Your task to perform on an android device: turn notification dots off Image 0: 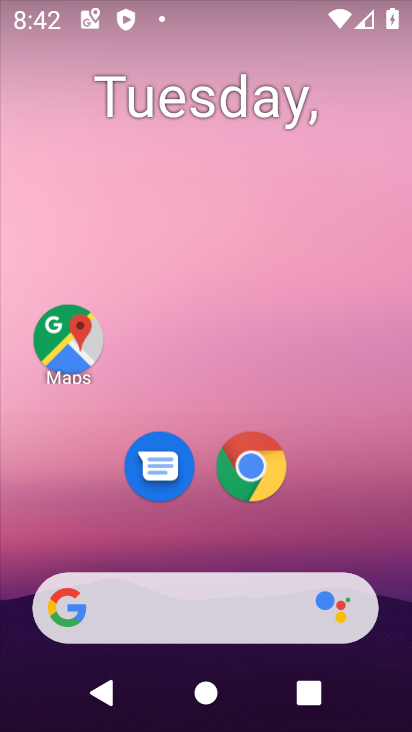
Step 0: drag from (379, 504) to (318, 145)
Your task to perform on an android device: turn notification dots off Image 1: 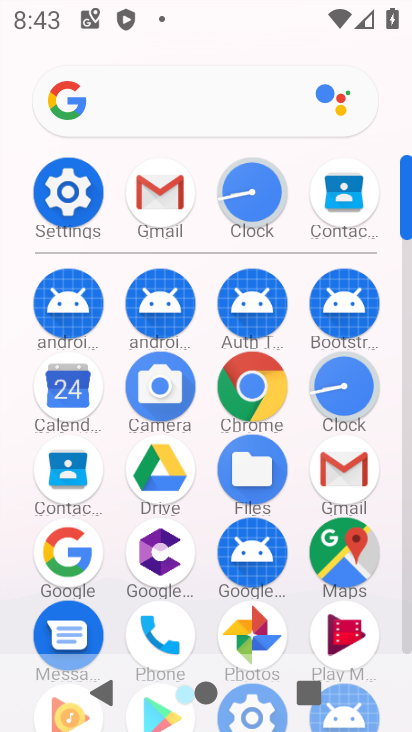
Step 1: click (58, 198)
Your task to perform on an android device: turn notification dots off Image 2: 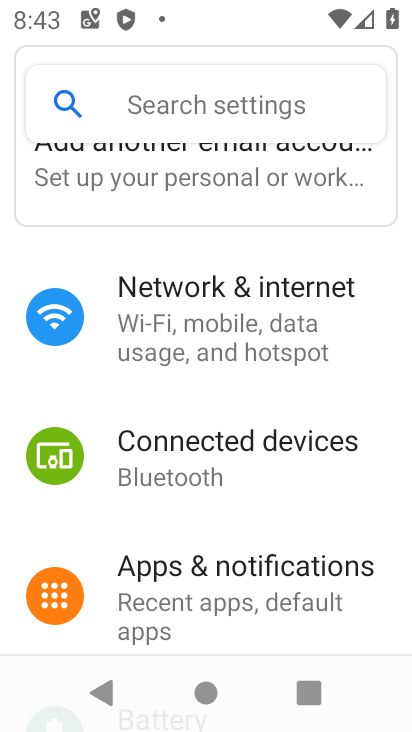
Step 2: click (178, 548)
Your task to perform on an android device: turn notification dots off Image 3: 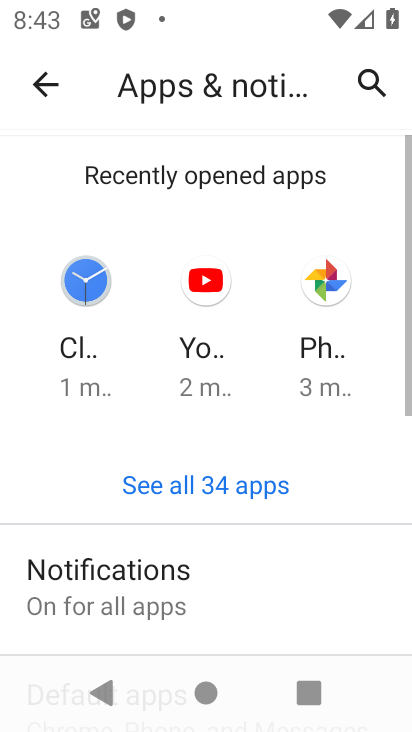
Step 3: click (150, 569)
Your task to perform on an android device: turn notification dots off Image 4: 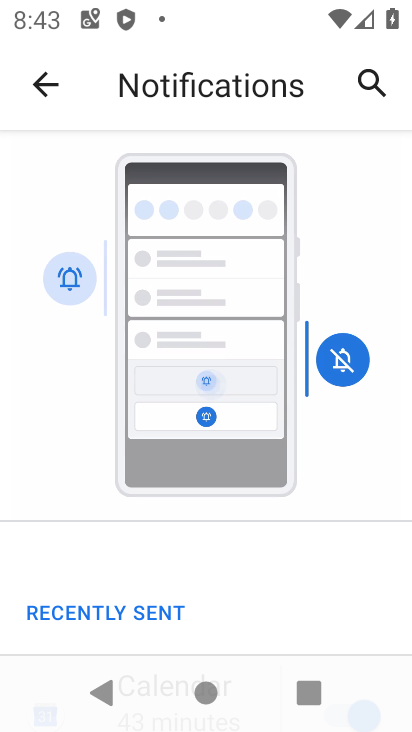
Step 4: drag from (236, 577) to (239, 232)
Your task to perform on an android device: turn notification dots off Image 5: 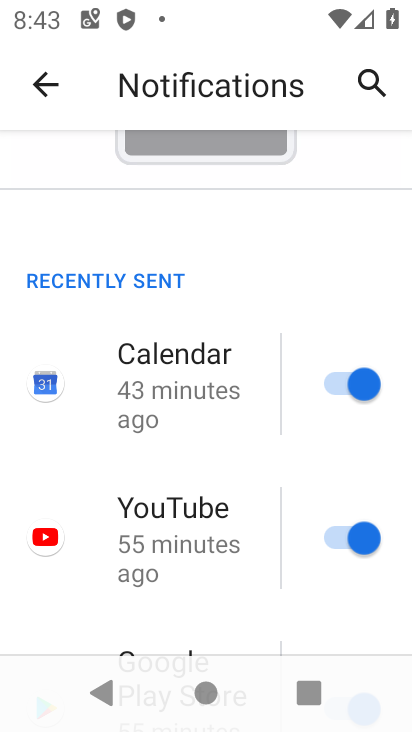
Step 5: drag from (241, 536) to (264, 261)
Your task to perform on an android device: turn notification dots off Image 6: 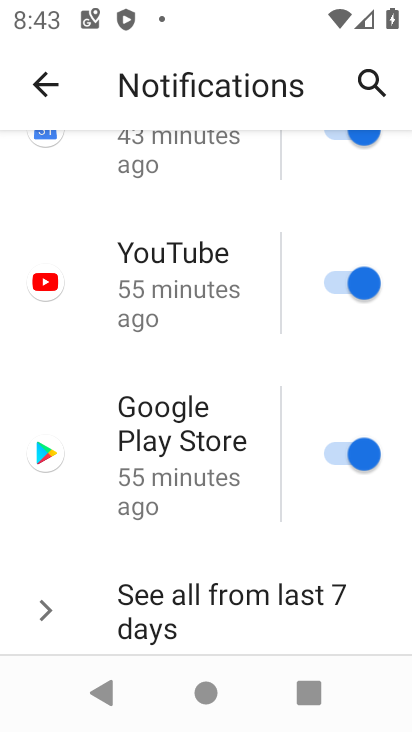
Step 6: drag from (230, 481) to (225, 189)
Your task to perform on an android device: turn notification dots off Image 7: 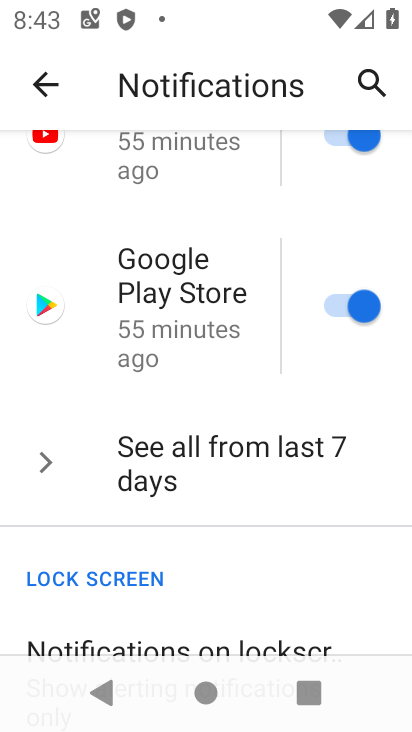
Step 7: drag from (177, 594) to (177, 274)
Your task to perform on an android device: turn notification dots off Image 8: 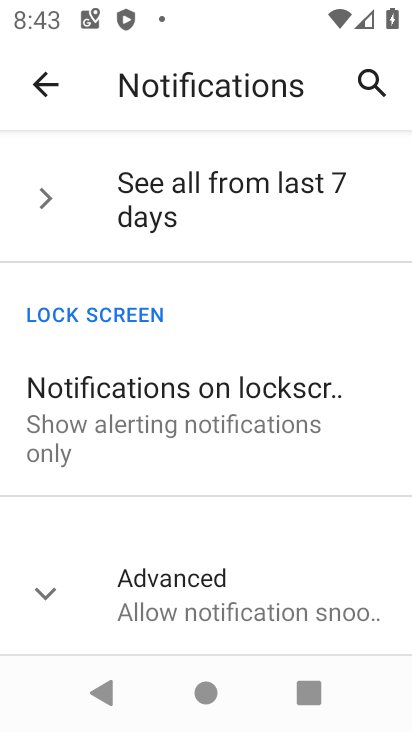
Step 8: click (193, 574)
Your task to perform on an android device: turn notification dots off Image 9: 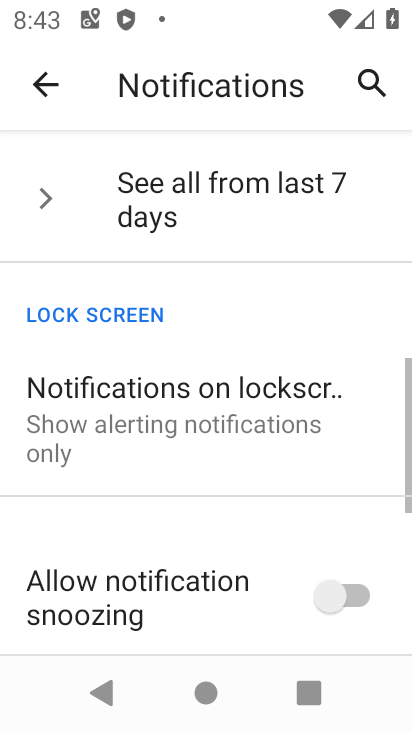
Step 9: drag from (272, 527) to (265, 321)
Your task to perform on an android device: turn notification dots off Image 10: 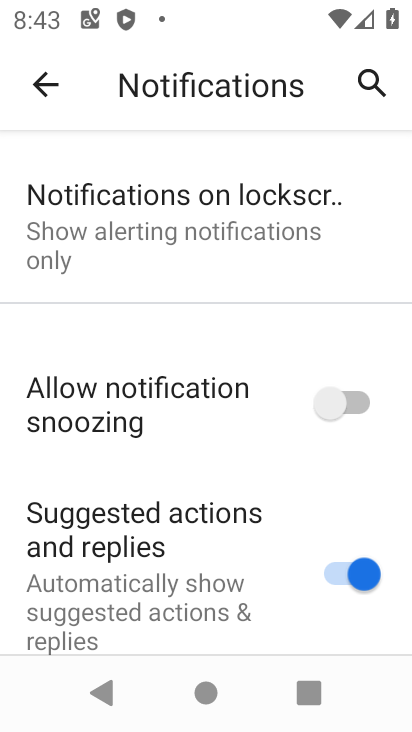
Step 10: drag from (294, 577) to (300, 313)
Your task to perform on an android device: turn notification dots off Image 11: 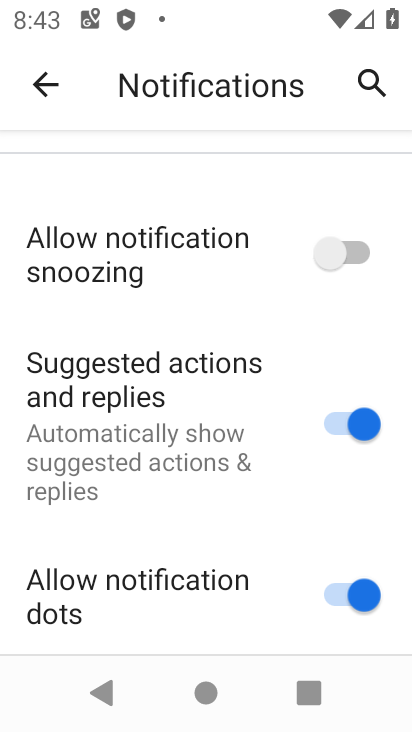
Step 11: click (322, 599)
Your task to perform on an android device: turn notification dots off Image 12: 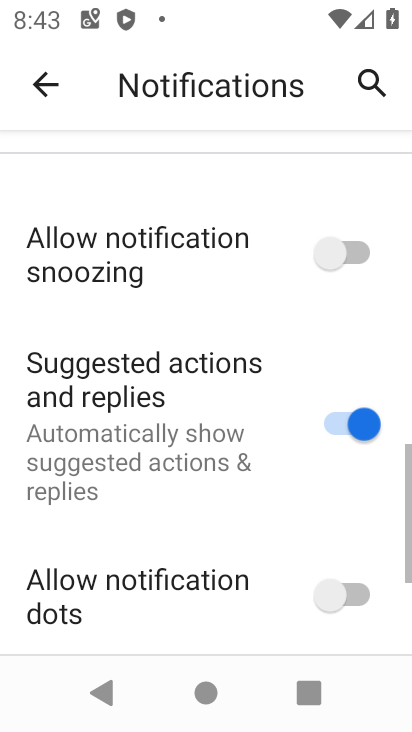
Step 12: task complete